Your task to perform on an android device: empty trash in google photos Image 0: 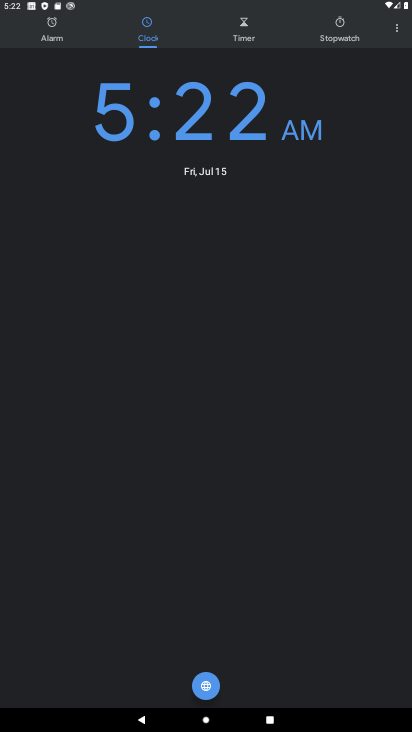
Step 0: press home button
Your task to perform on an android device: empty trash in google photos Image 1: 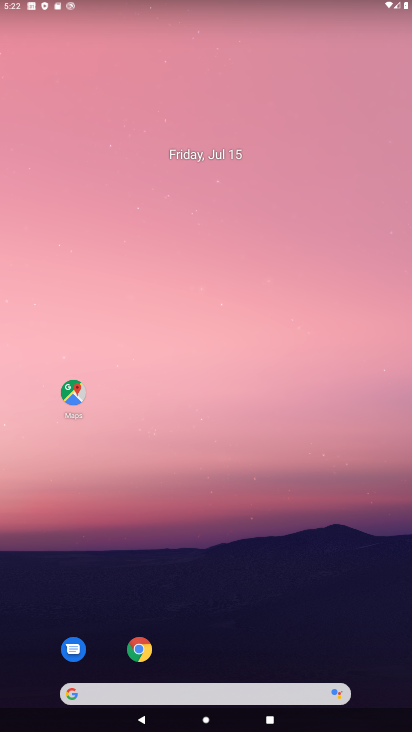
Step 1: drag from (198, 692) to (243, 141)
Your task to perform on an android device: empty trash in google photos Image 2: 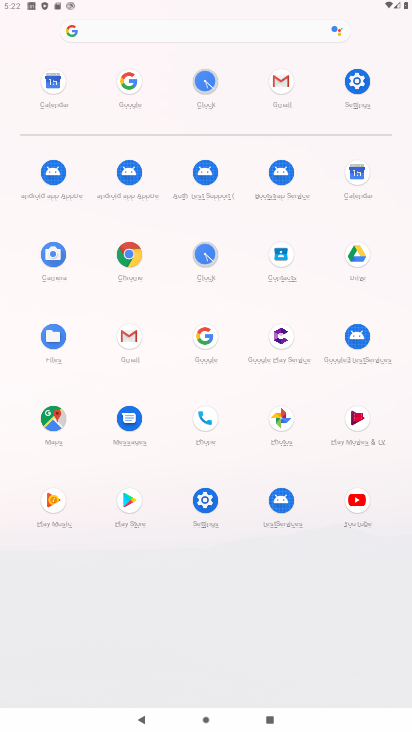
Step 2: click (282, 417)
Your task to perform on an android device: empty trash in google photos Image 3: 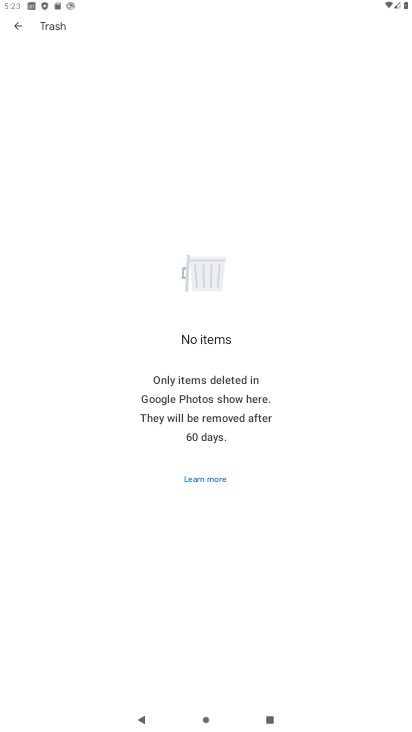
Step 3: task complete